Your task to perform on an android device: Open calendar and show me the fourth week of next month Image 0: 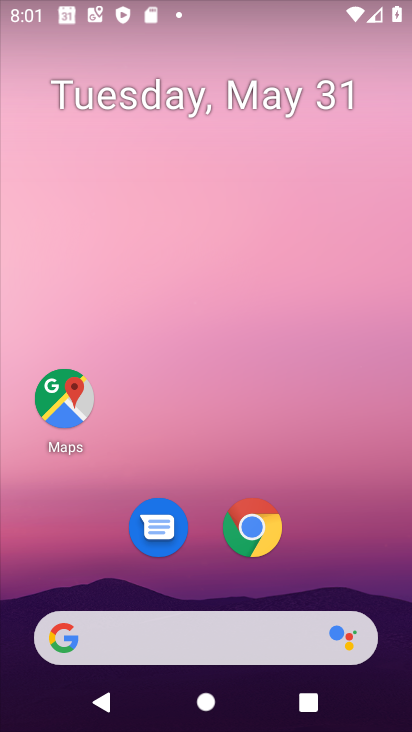
Step 0: drag from (322, 544) to (227, 171)
Your task to perform on an android device: Open calendar and show me the fourth week of next month Image 1: 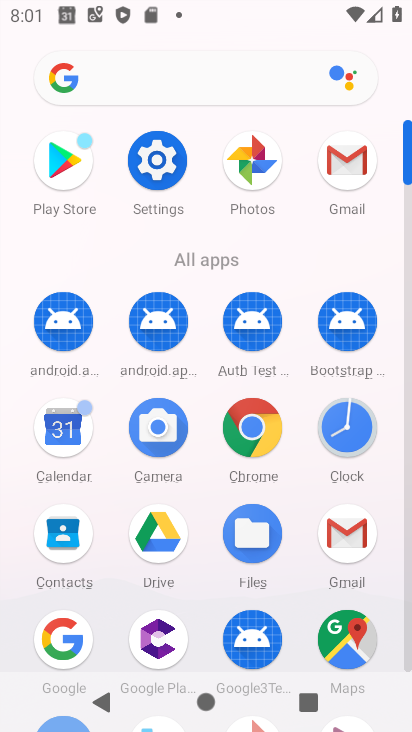
Step 1: click (57, 425)
Your task to perform on an android device: Open calendar and show me the fourth week of next month Image 2: 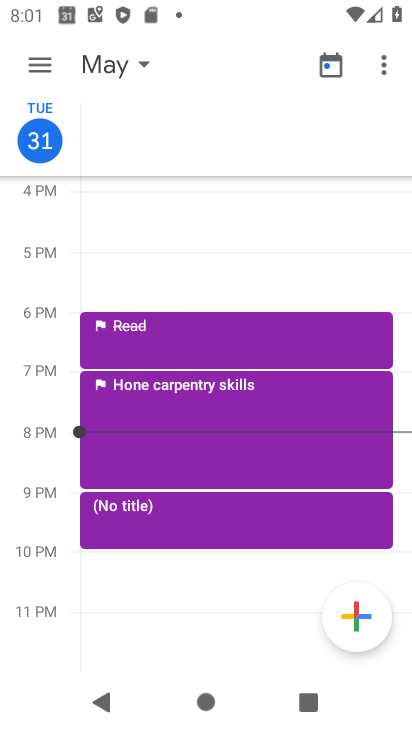
Step 2: click (36, 61)
Your task to perform on an android device: Open calendar and show me the fourth week of next month Image 3: 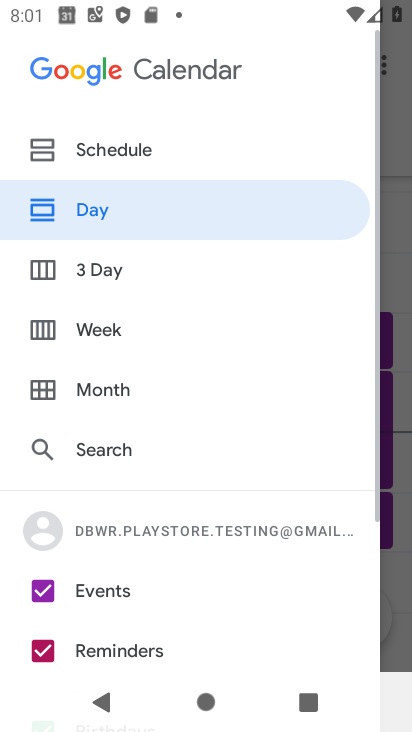
Step 3: click (91, 322)
Your task to perform on an android device: Open calendar and show me the fourth week of next month Image 4: 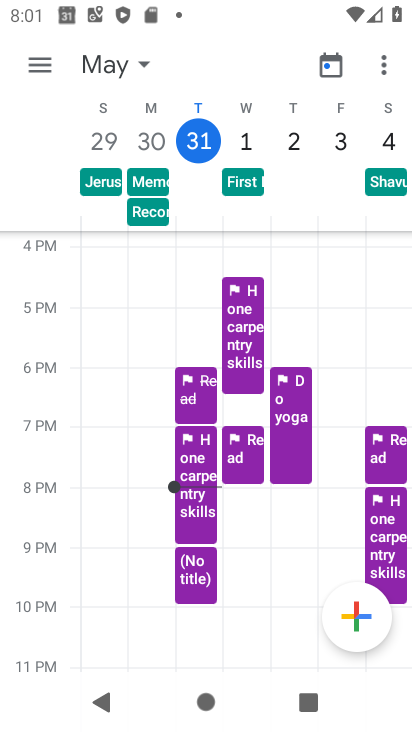
Step 4: click (141, 63)
Your task to perform on an android device: Open calendar and show me the fourth week of next month Image 5: 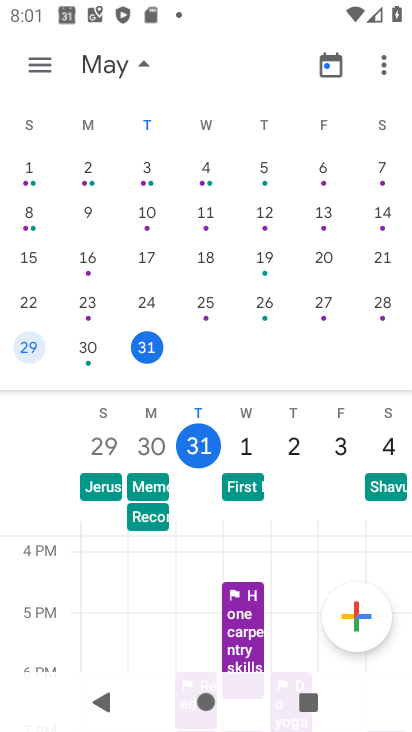
Step 5: drag from (366, 229) to (47, 159)
Your task to perform on an android device: Open calendar and show me the fourth week of next month Image 6: 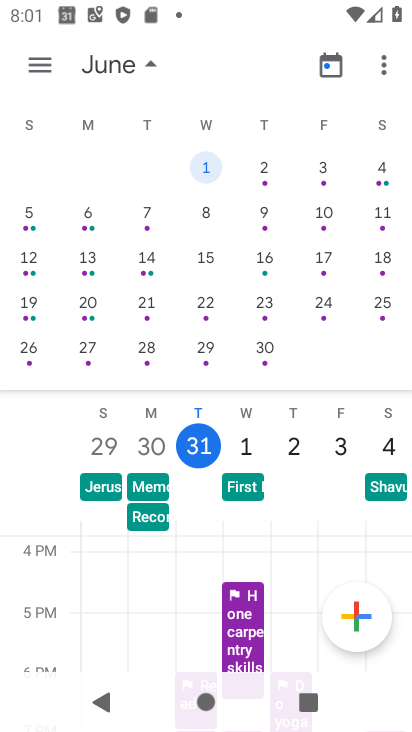
Step 6: click (201, 297)
Your task to perform on an android device: Open calendar and show me the fourth week of next month Image 7: 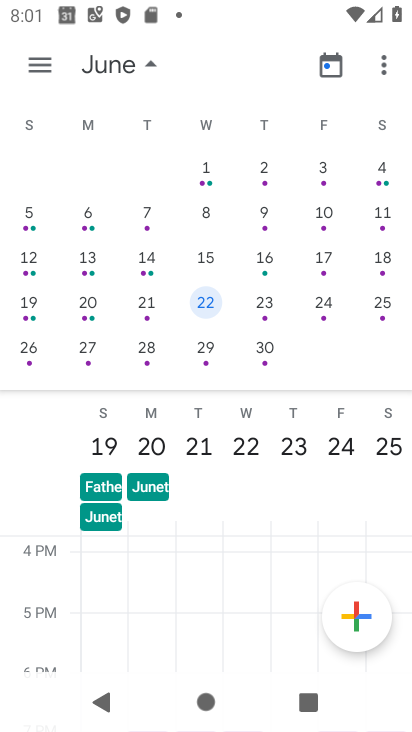
Step 7: task complete